Your task to perform on an android device: Open a new window in Chrome Image 0: 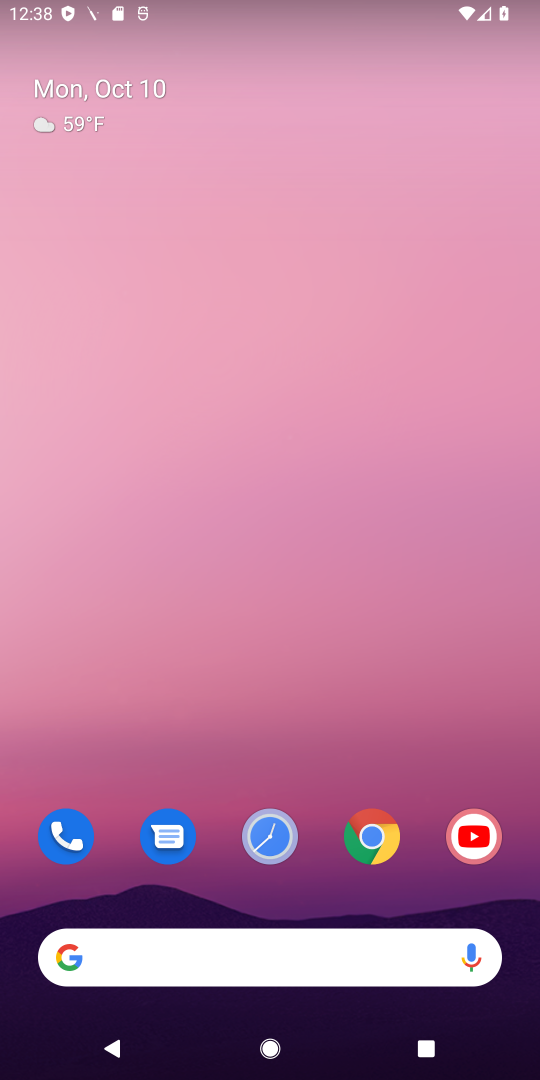
Step 0: click (363, 850)
Your task to perform on an android device: Open a new window in Chrome Image 1: 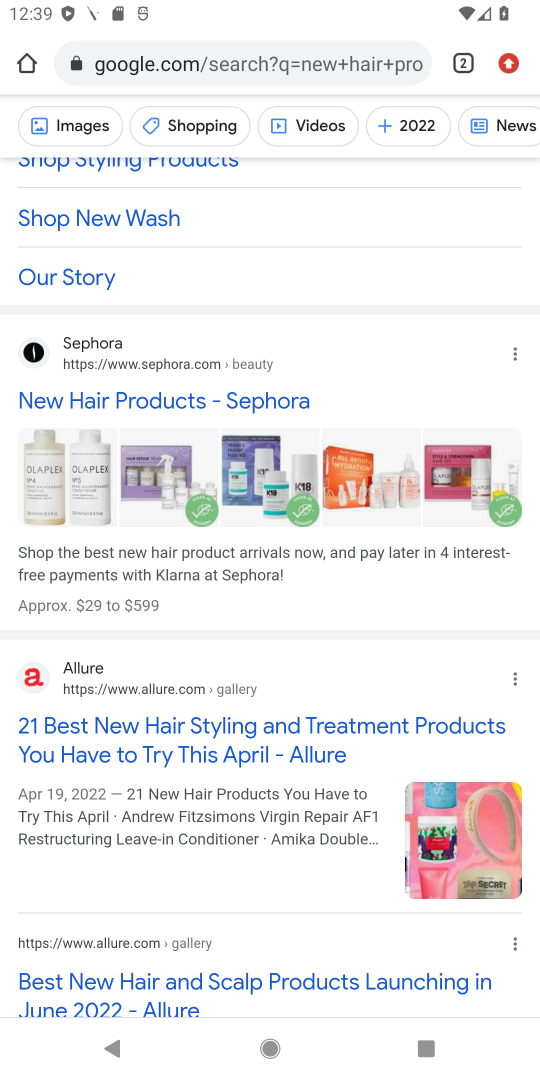
Step 1: click (517, 51)
Your task to perform on an android device: Open a new window in Chrome Image 2: 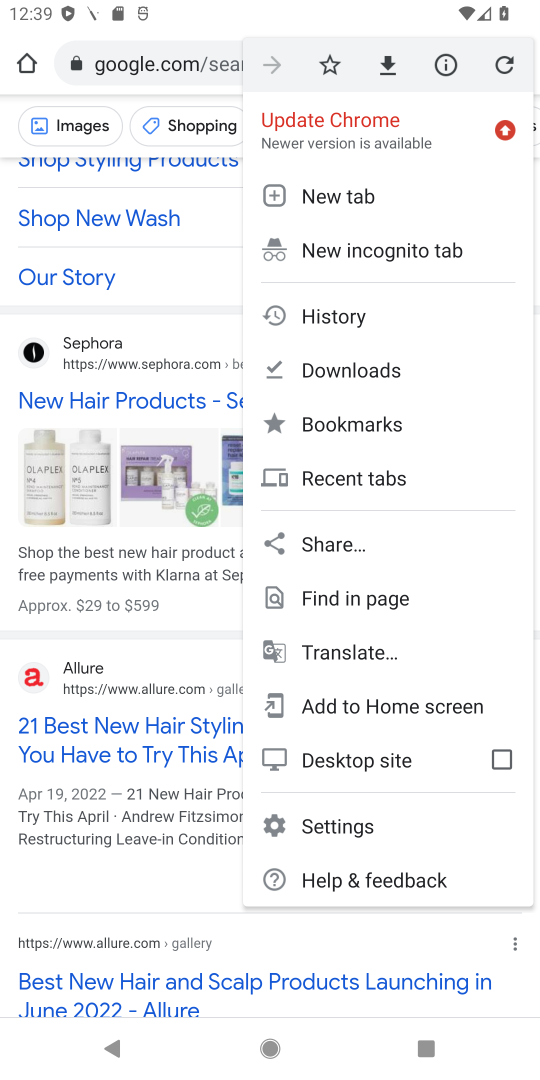
Step 2: click (352, 191)
Your task to perform on an android device: Open a new window in Chrome Image 3: 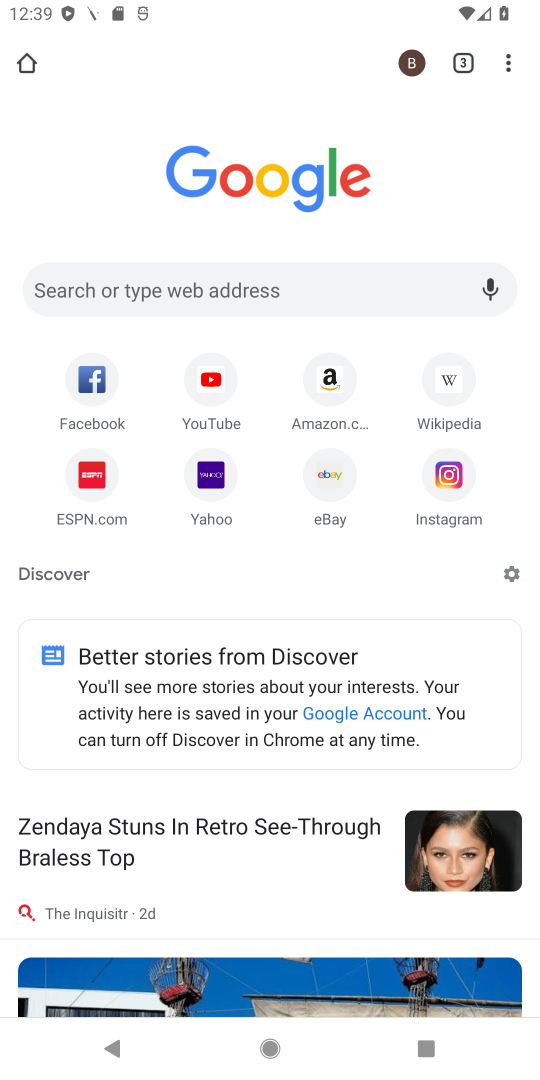
Step 3: task complete